Your task to perform on an android device: make emails show in primary in the gmail app Image 0: 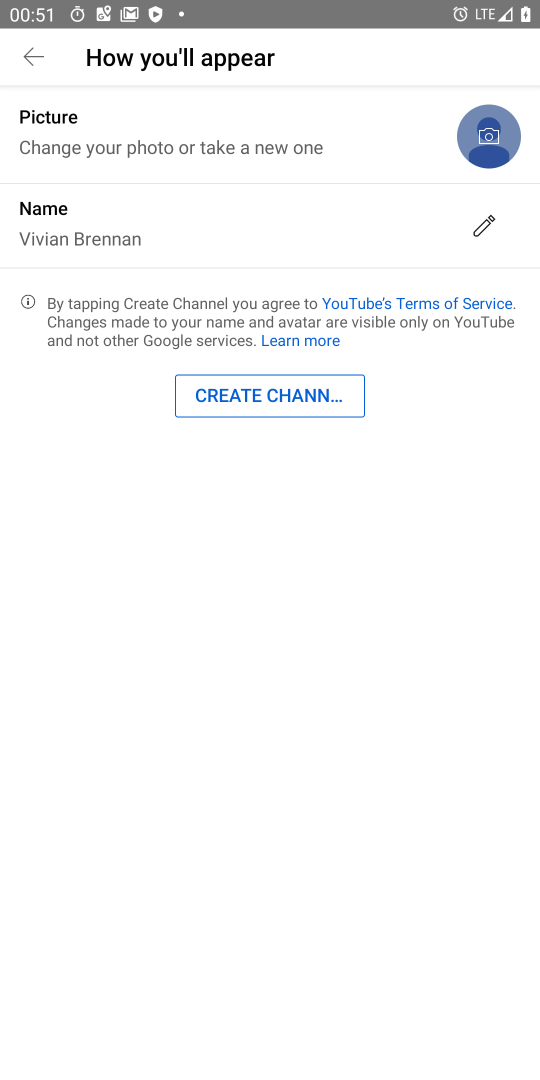
Step 0: press home button
Your task to perform on an android device: make emails show in primary in the gmail app Image 1: 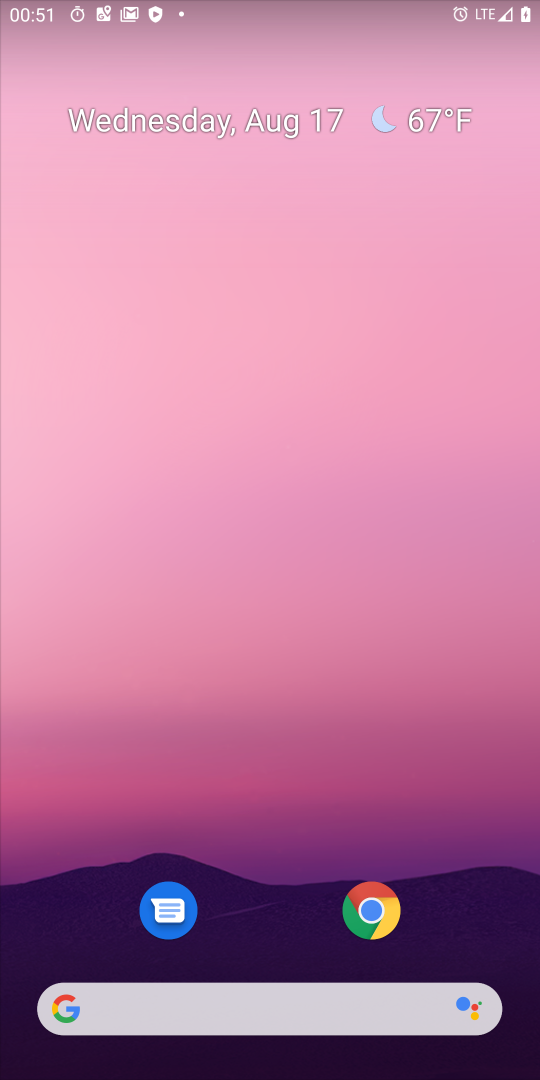
Step 1: drag from (265, 853) to (317, 0)
Your task to perform on an android device: make emails show in primary in the gmail app Image 2: 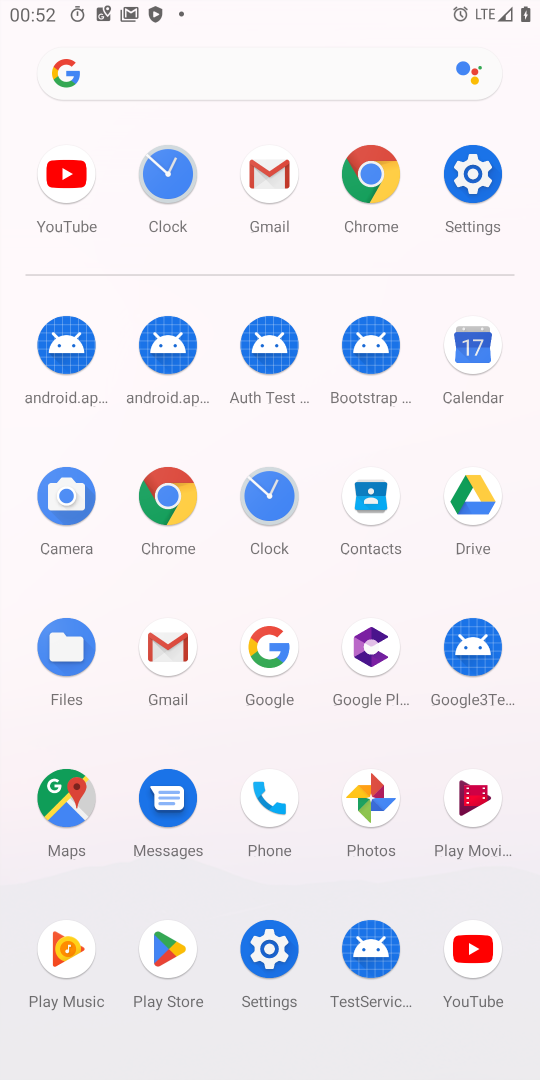
Step 2: click (174, 661)
Your task to perform on an android device: make emails show in primary in the gmail app Image 3: 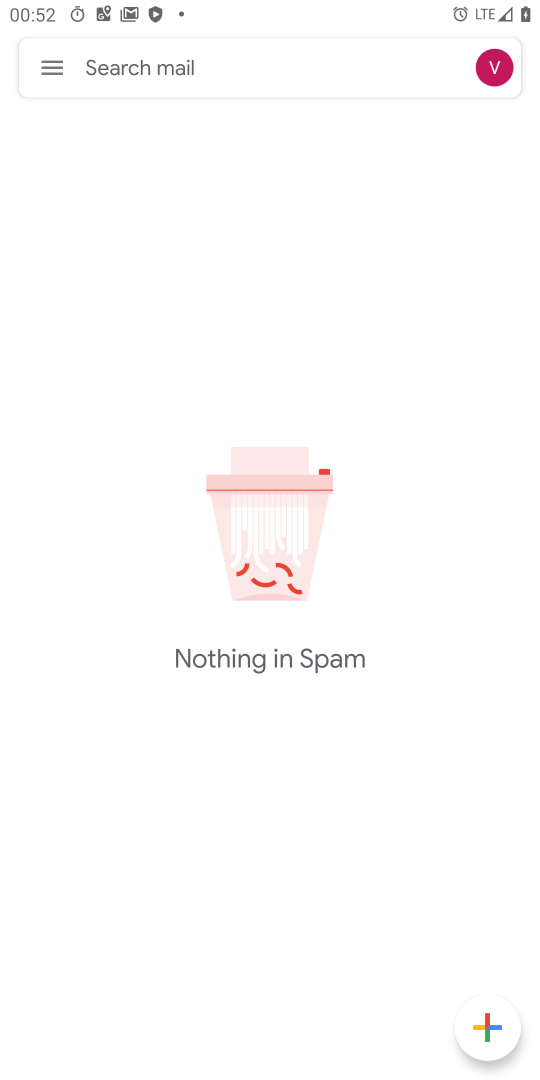
Step 3: click (47, 72)
Your task to perform on an android device: make emails show in primary in the gmail app Image 4: 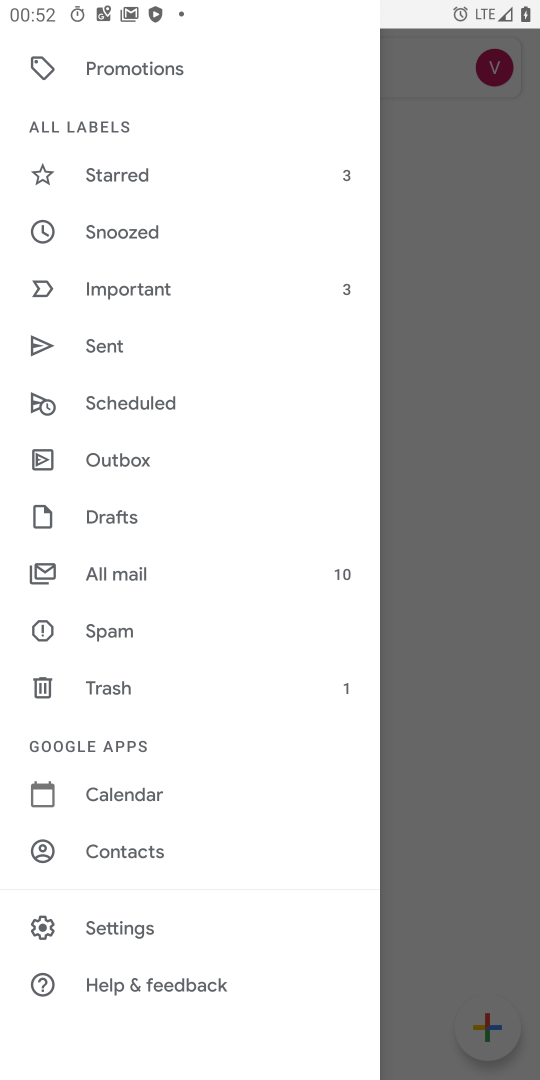
Step 4: click (138, 933)
Your task to perform on an android device: make emails show in primary in the gmail app Image 5: 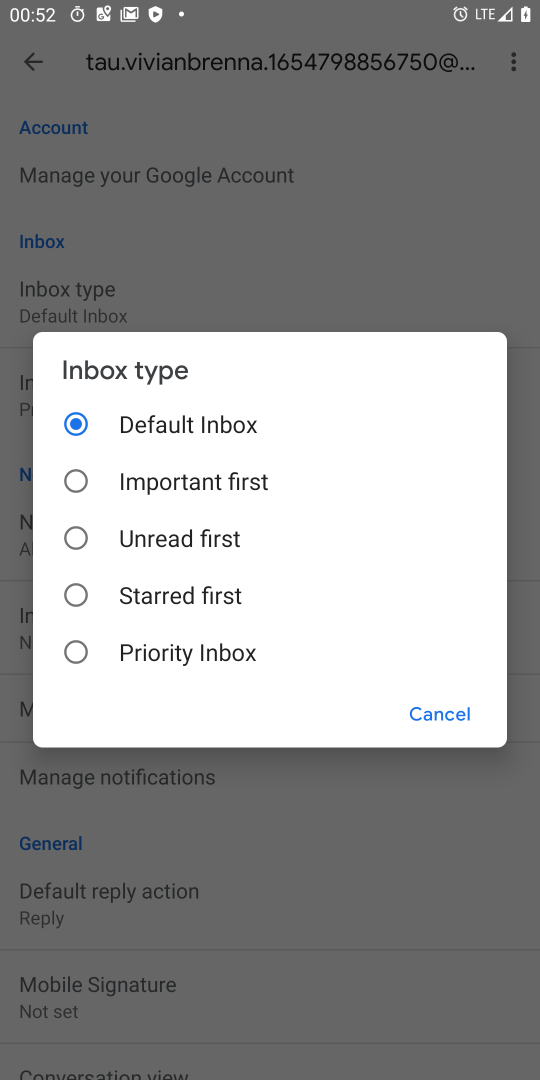
Step 5: click (262, 907)
Your task to perform on an android device: make emails show in primary in the gmail app Image 6: 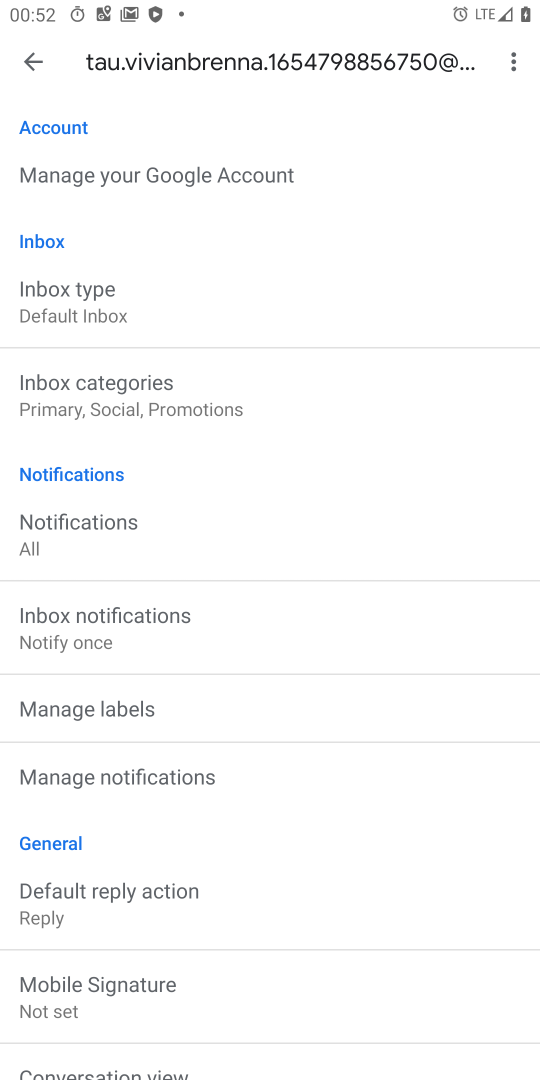
Step 6: click (148, 408)
Your task to perform on an android device: make emails show in primary in the gmail app Image 7: 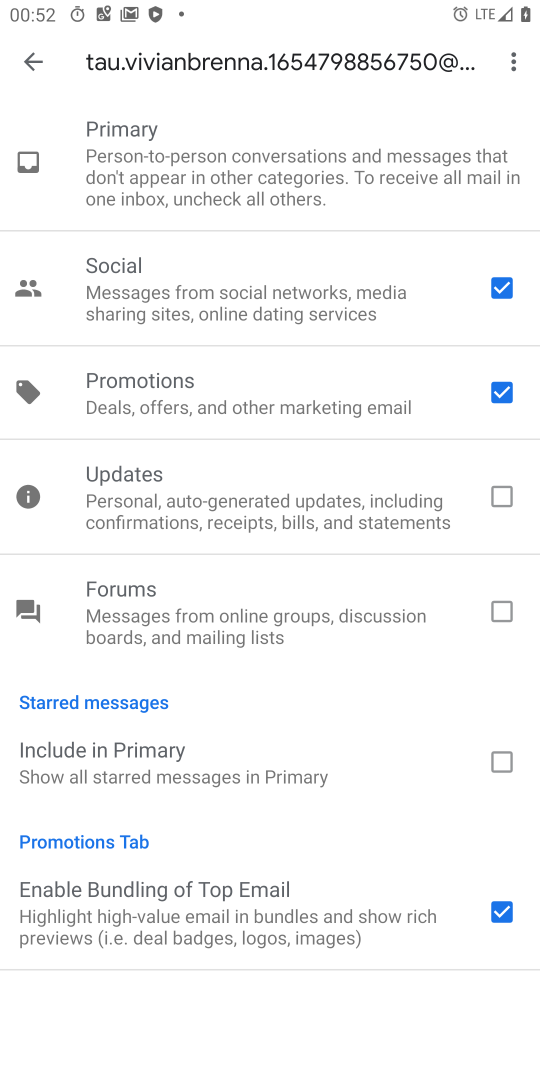
Step 7: task complete